Your task to perform on an android device: Open eBay Image 0: 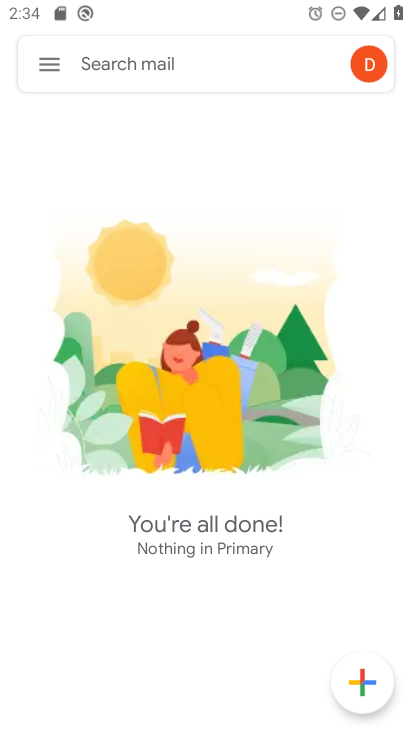
Step 0: press home button
Your task to perform on an android device: Open eBay Image 1: 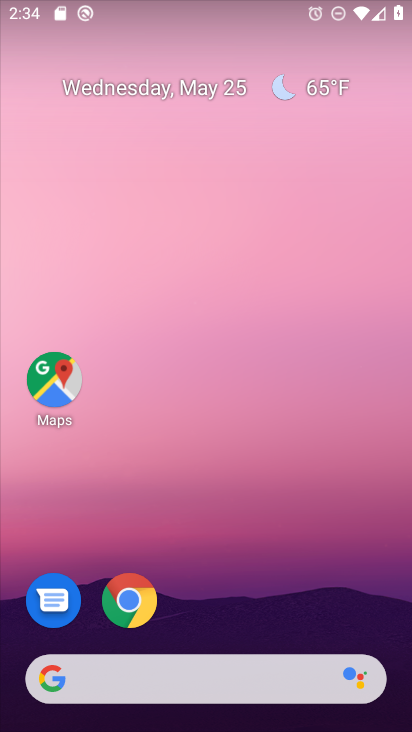
Step 1: drag from (282, 573) to (236, 131)
Your task to perform on an android device: Open eBay Image 2: 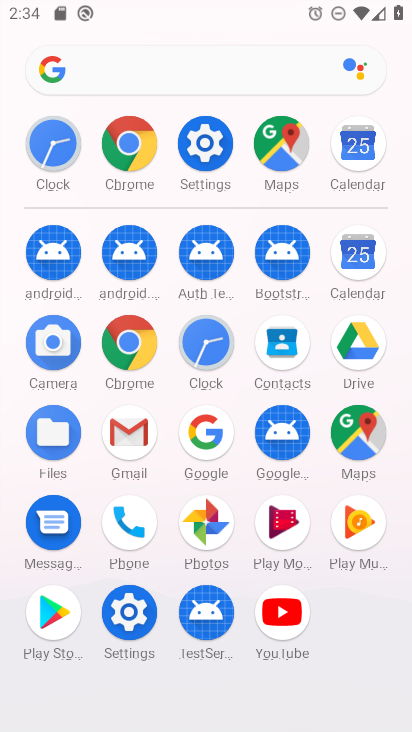
Step 2: click (123, 362)
Your task to perform on an android device: Open eBay Image 3: 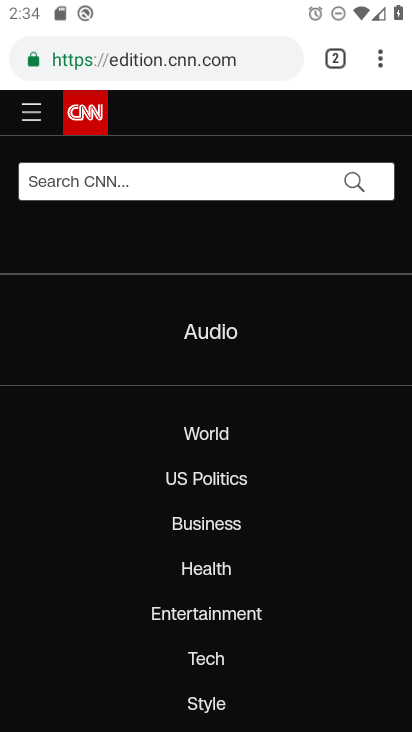
Step 3: click (215, 58)
Your task to perform on an android device: Open eBay Image 4: 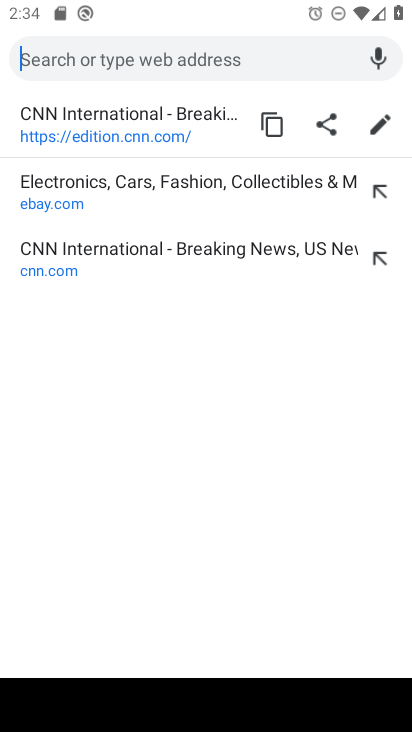
Step 4: click (60, 209)
Your task to perform on an android device: Open eBay Image 5: 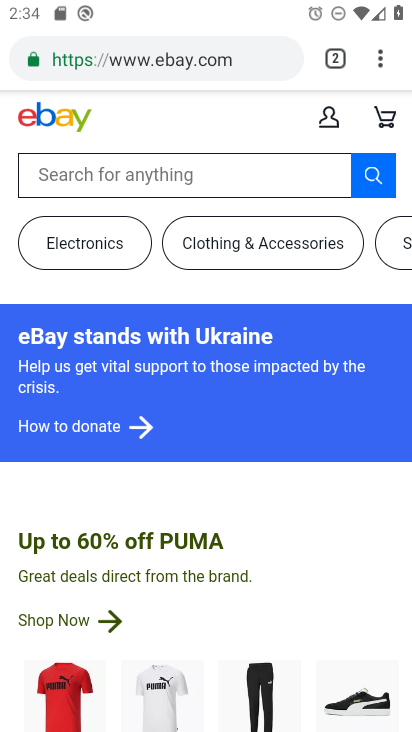
Step 5: task complete